Your task to perform on an android device: Go to accessibility settings Image 0: 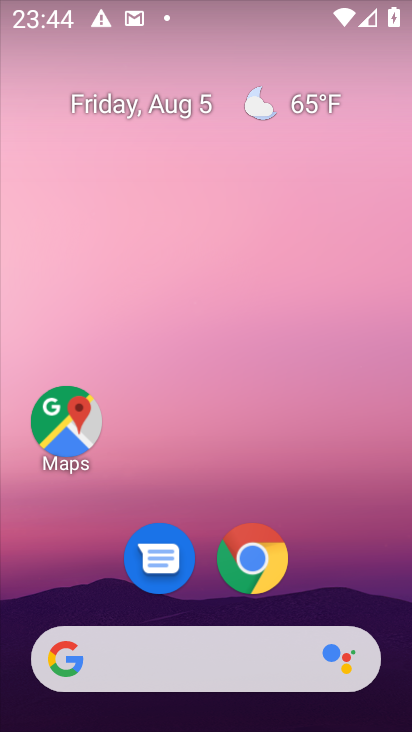
Step 0: press home button
Your task to perform on an android device: Go to accessibility settings Image 1: 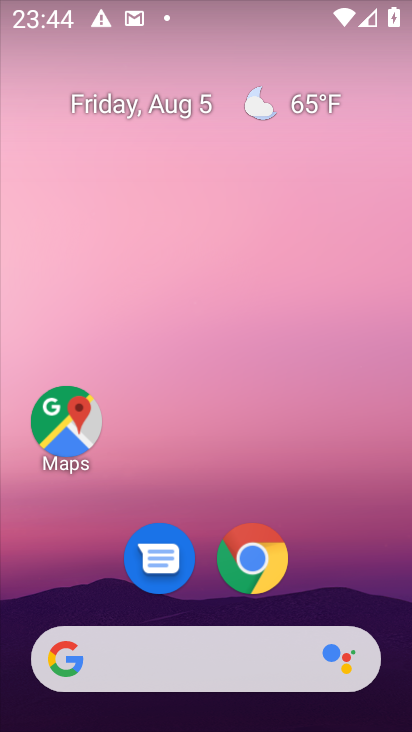
Step 1: drag from (345, 594) to (378, 230)
Your task to perform on an android device: Go to accessibility settings Image 2: 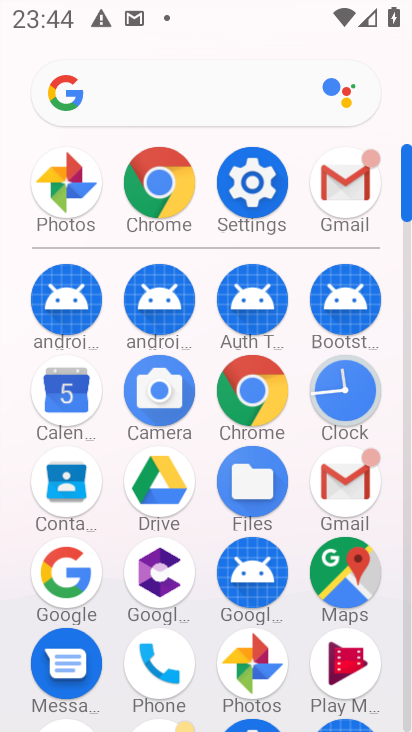
Step 2: click (265, 198)
Your task to perform on an android device: Go to accessibility settings Image 3: 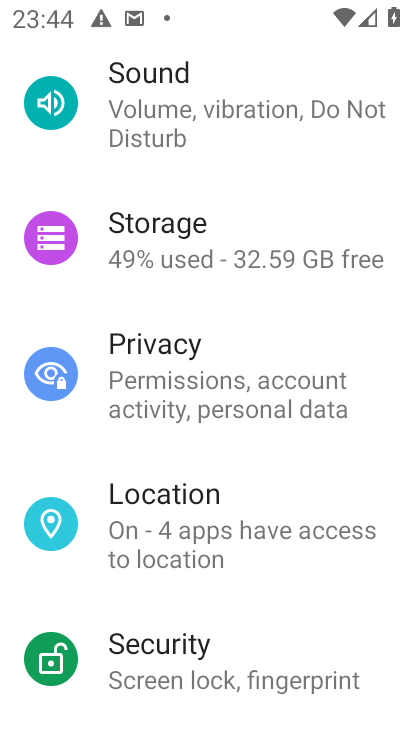
Step 3: drag from (369, 216) to (381, 292)
Your task to perform on an android device: Go to accessibility settings Image 4: 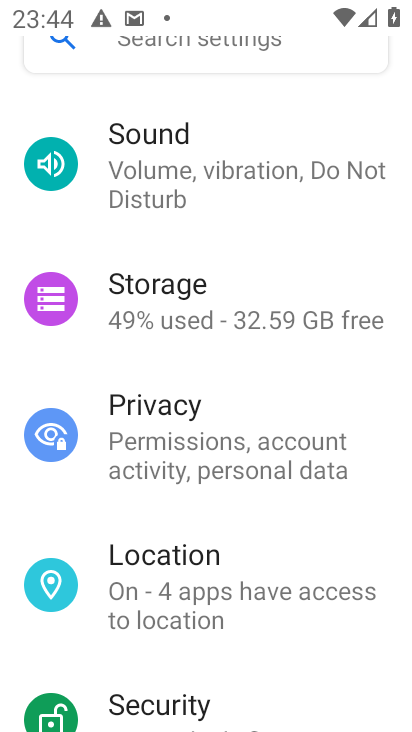
Step 4: drag from (372, 243) to (384, 338)
Your task to perform on an android device: Go to accessibility settings Image 5: 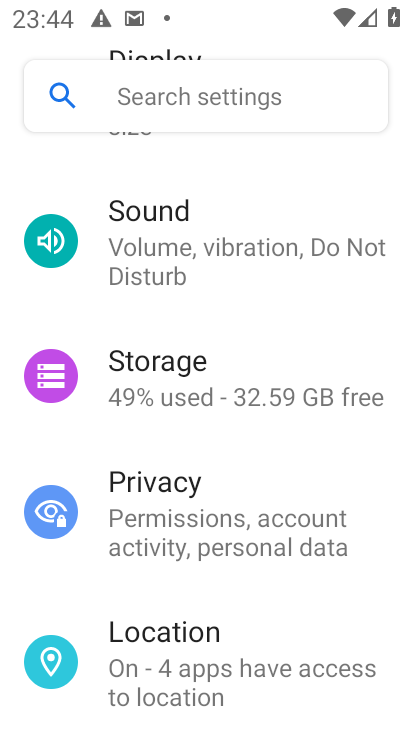
Step 5: drag from (373, 161) to (372, 318)
Your task to perform on an android device: Go to accessibility settings Image 6: 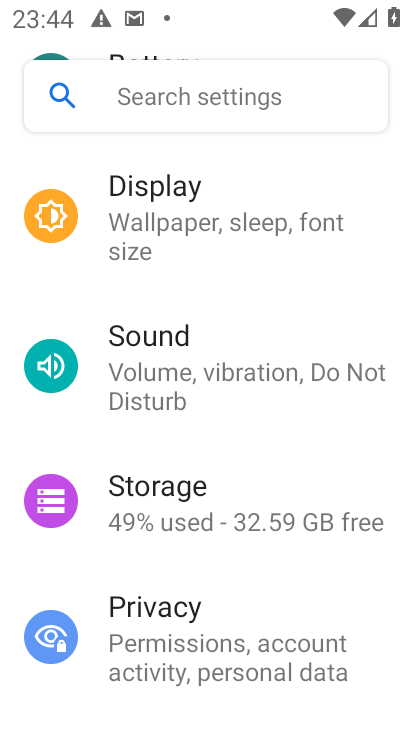
Step 6: drag from (365, 179) to (371, 386)
Your task to perform on an android device: Go to accessibility settings Image 7: 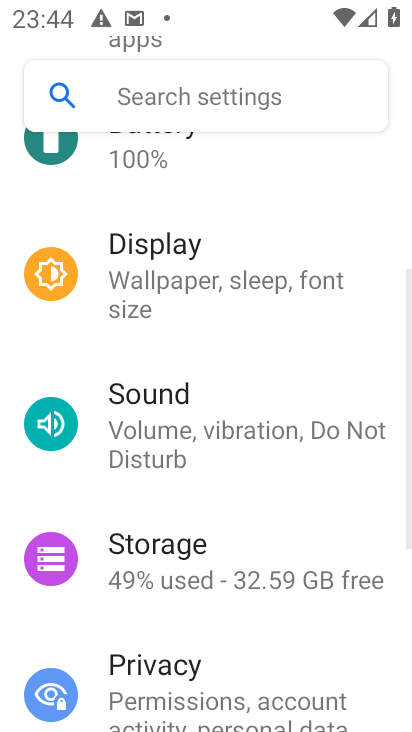
Step 7: drag from (365, 371) to (364, 259)
Your task to perform on an android device: Go to accessibility settings Image 8: 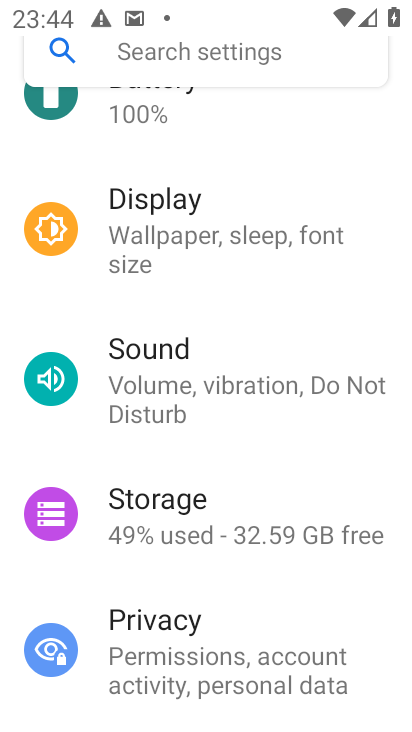
Step 8: drag from (372, 419) to (380, 301)
Your task to perform on an android device: Go to accessibility settings Image 9: 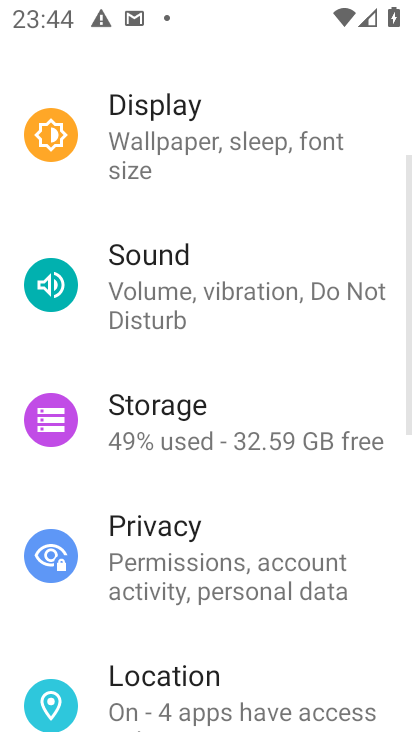
Step 9: drag from (376, 464) to (372, 352)
Your task to perform on an android device: Go to accessibility settings Image 10: 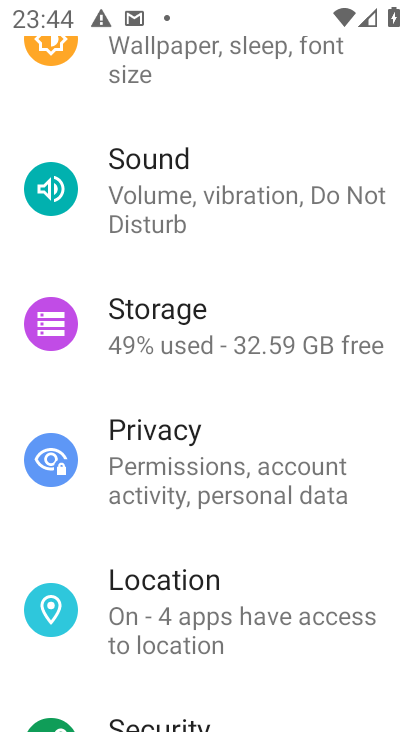
Step 10: drag from (365, 470) to (371, 370)
Your task to perform on an android device: Go to accessibility settings Image 11: 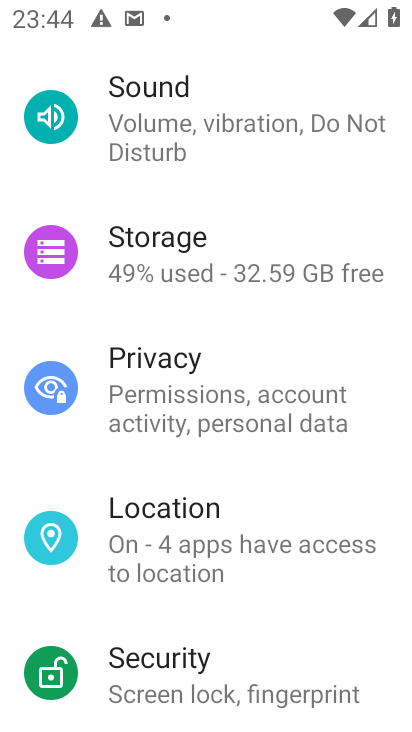
Step 11: drag from (340, 484) to (339, 392)
Your task to perform on an android device: Go to accessibility settings Image 12: 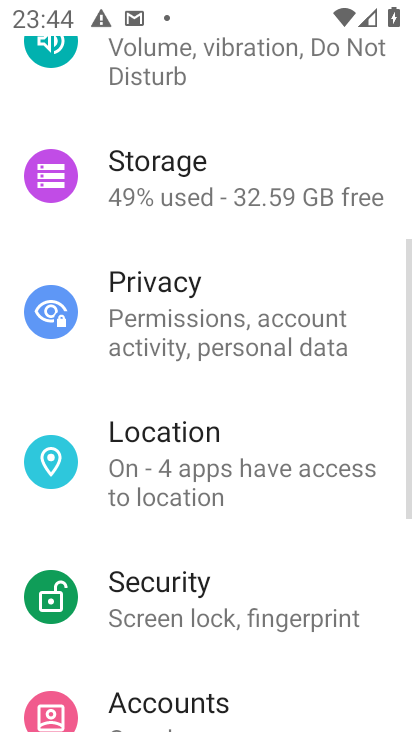
Step 12: drag from (348, 464) to (354, 376)
Your task to perform on an android device: Go to accessibility settings Image 13: 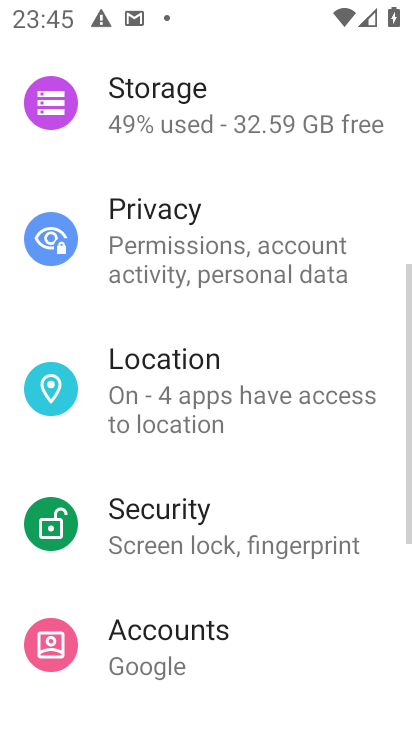
Step 13: drag from (359, 498) to (386, 333)
Your task to perform on an android device: Go to accessibility settings Image 14: 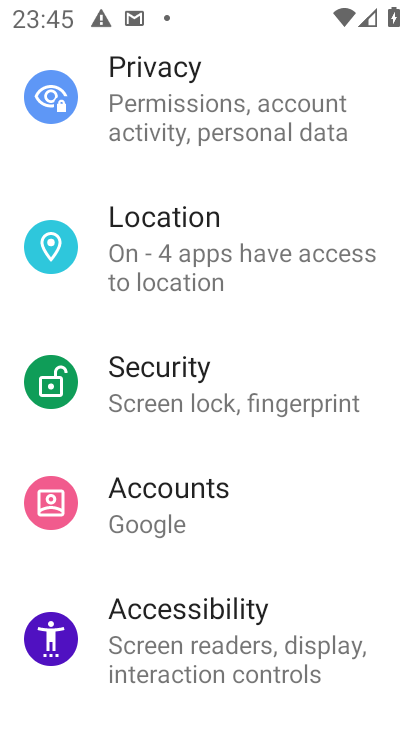
Step 14: drag from (334, 519) to (344, 381)
Your task to perform on an android device: Go to accessibility settings Image 15: 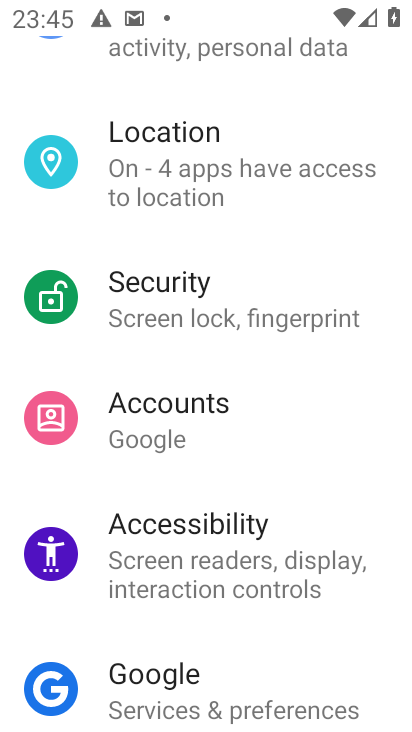
Step 15: click (356, 582)
Your task to perform on an android device: Go to accessibility settings Image 16: 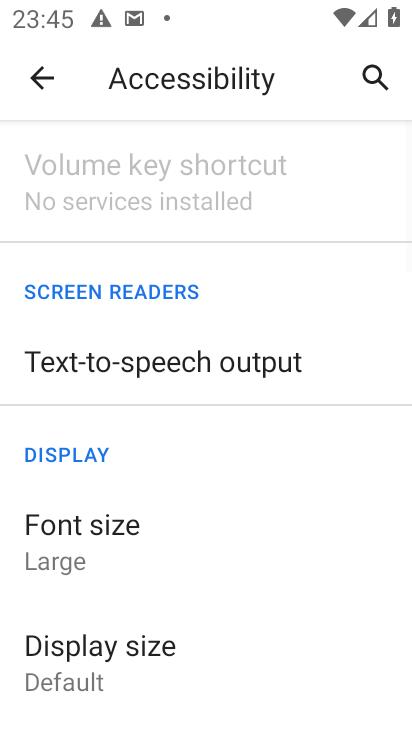
Step 16: task complete